Your task to perform on an android device: Go to location settings Image 0: 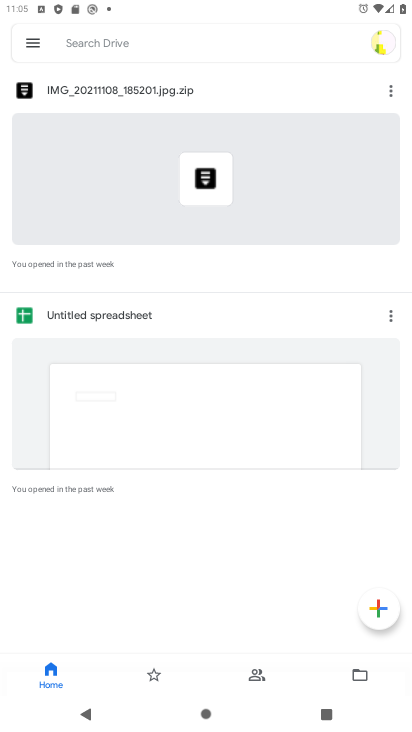
Step 0: press home button
Your task to perform on an android device: Go to location settings Image 1: 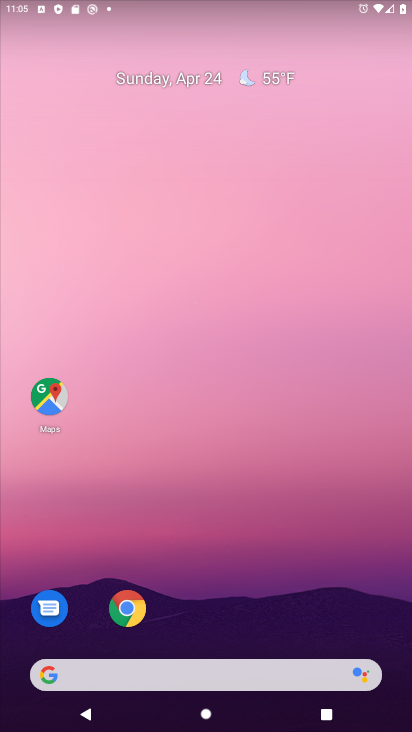
Step 1: drag from (338, 527) to (318, 82)
Your task to perform on an android device: Go to location settings Image 2: 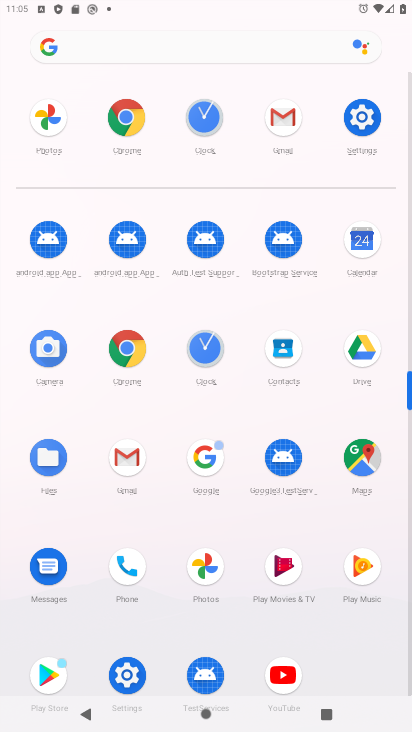
Step 2: click (409, 674)
Your task to perform on an android device: Go to location settings Image 3: 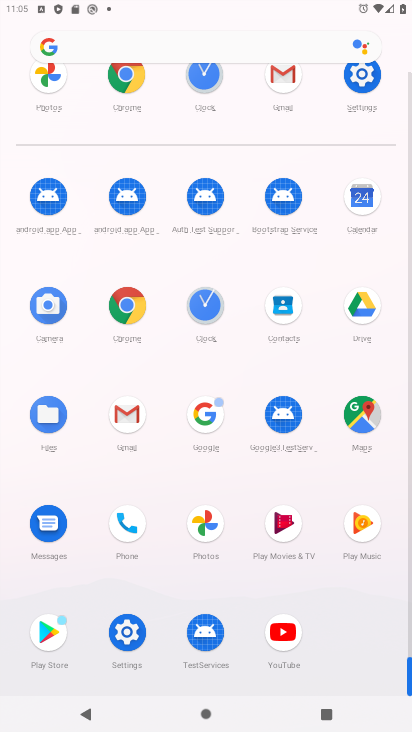
Step 3: click (125, 629)
Your task to perform on an android device: Go to location settings Image 4: 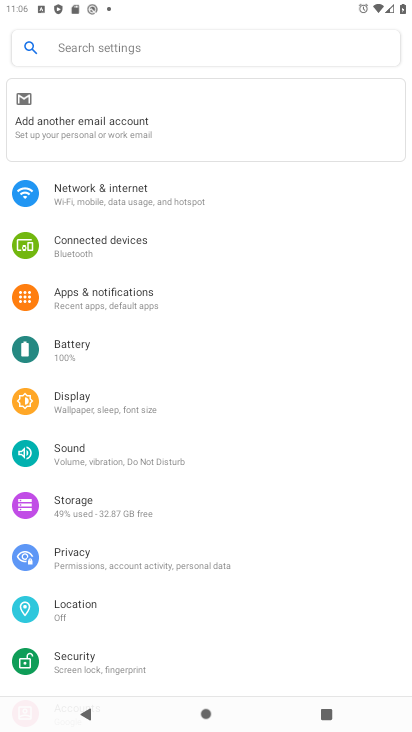
Step 4: click (63, 607)
Your task to perform on an android device: Go to location settings Image 5: 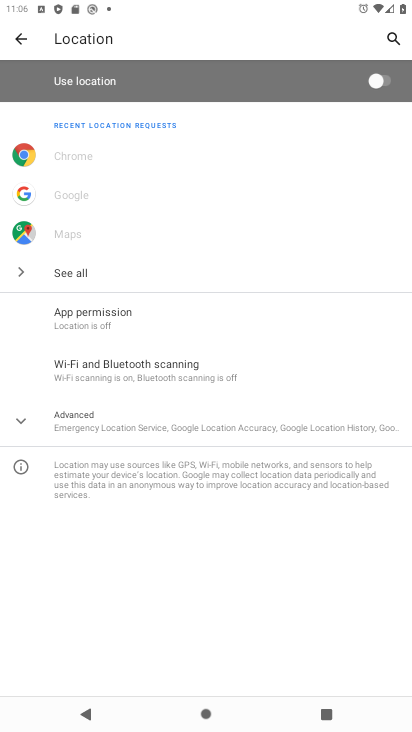
Step 5: click (383, 80)
Your task to perform on an android device: Go to location settings Image 6: 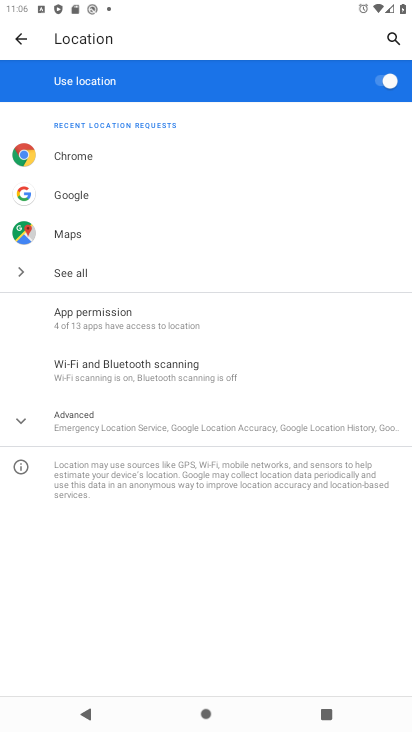
Step 6: click (7, 423)
Your task to perform on an android device: Go to location settings Image 7: 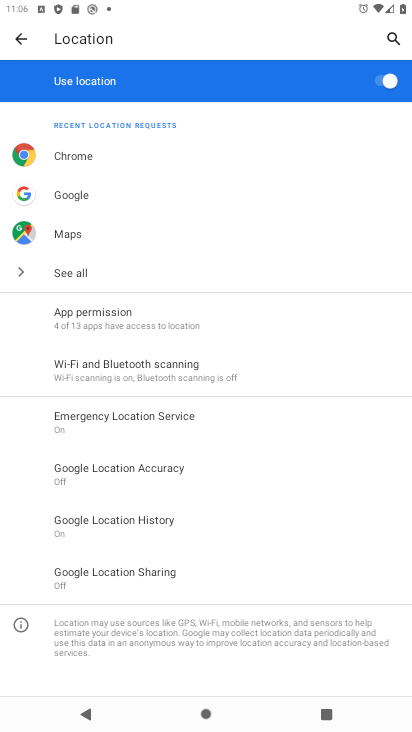
Step 7: task complete